Your task to perform on an android device: delete a single message in the gmail app Image 0: 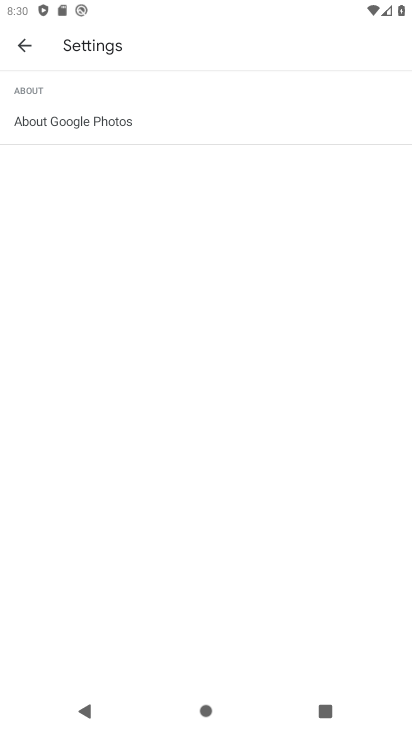
Step 0: press home button
Your task to perform on an android device: delete a single message in the gmail app Image 1: 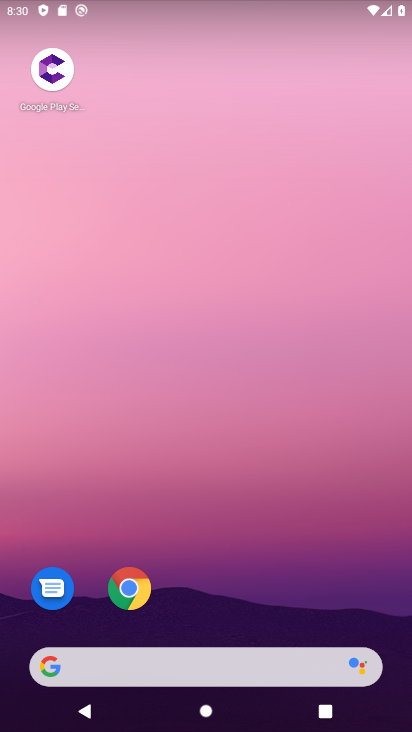
Step 1: drag from (241, 604) to (238, 289)
Your task to perform on an android device: delete a single message in the gmail app Image 2: 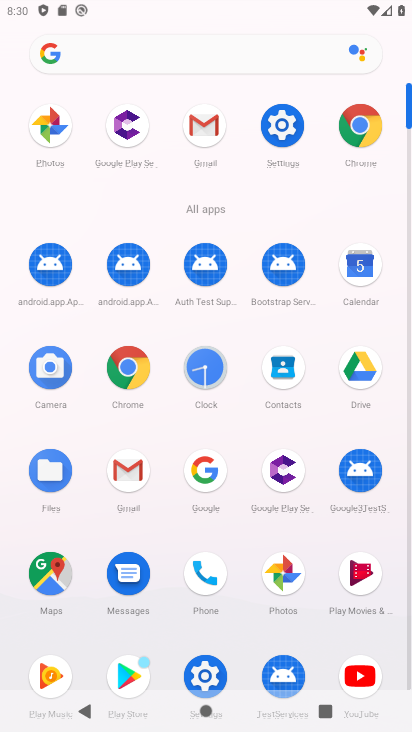
Step 2: click (194, 129)
Your task to perform on an android device: delete a single message in the gmail app Image 3: 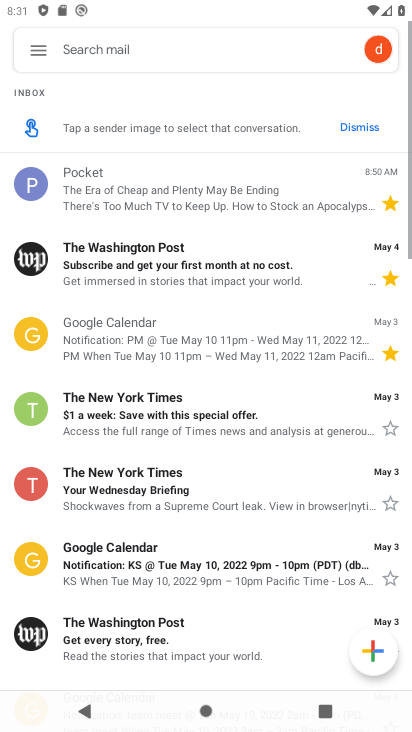
Step 3: click (110, 254)
Your task to perform on an android device: delete a single message in the gmail app Image 4: 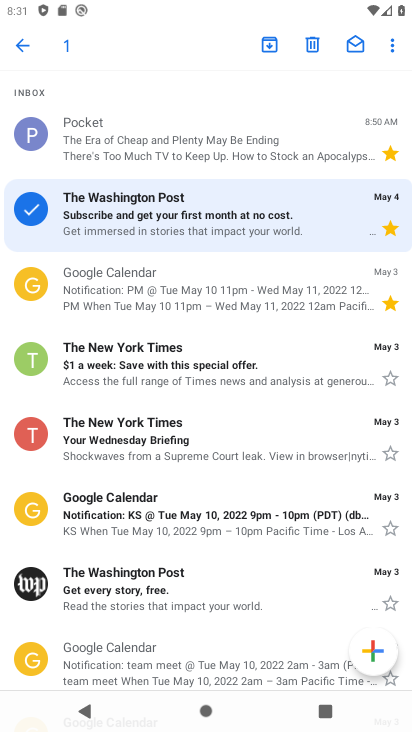
Step 4: click (314, 40)
Your task to perform on an android device: delete a single message in the gmail app Image 5: 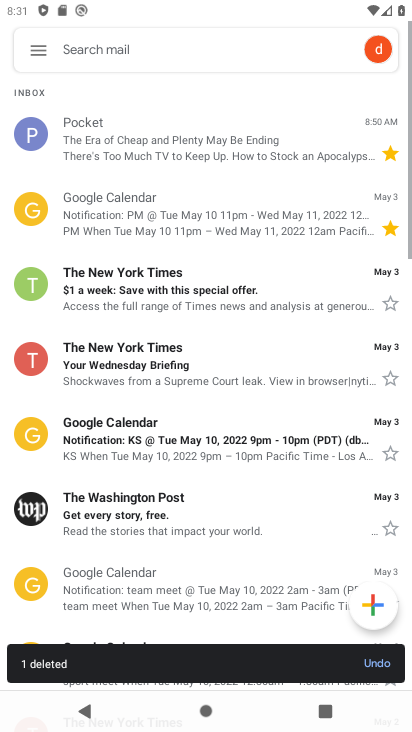
Step 5: click (42, 672)
Your task to perform on an android device: delete a single message in the gmail app Image 6: 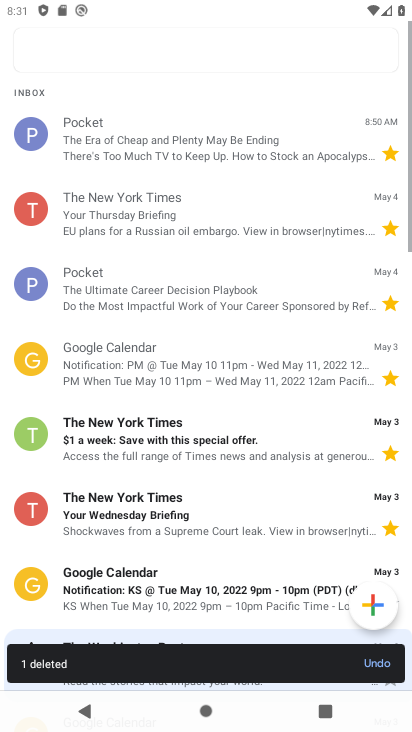
Step 6: click (46, 661)
Your task to perform on an android device: delete a single message in the gmail app Image 7: 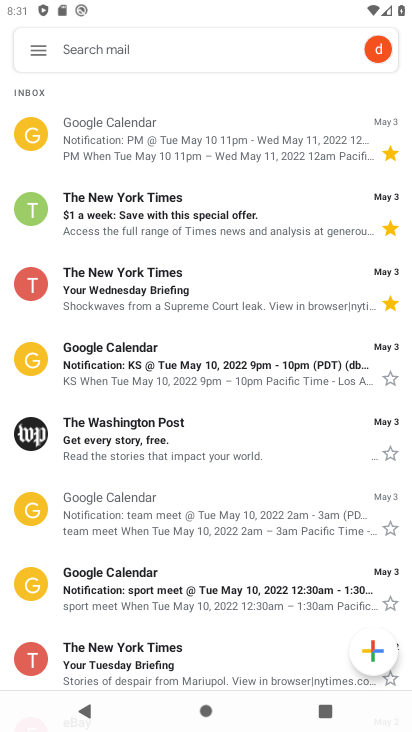
Step 7: task complete